Your task to perform on an android device: Open calendar and show me the fourth week of next month Image 0: 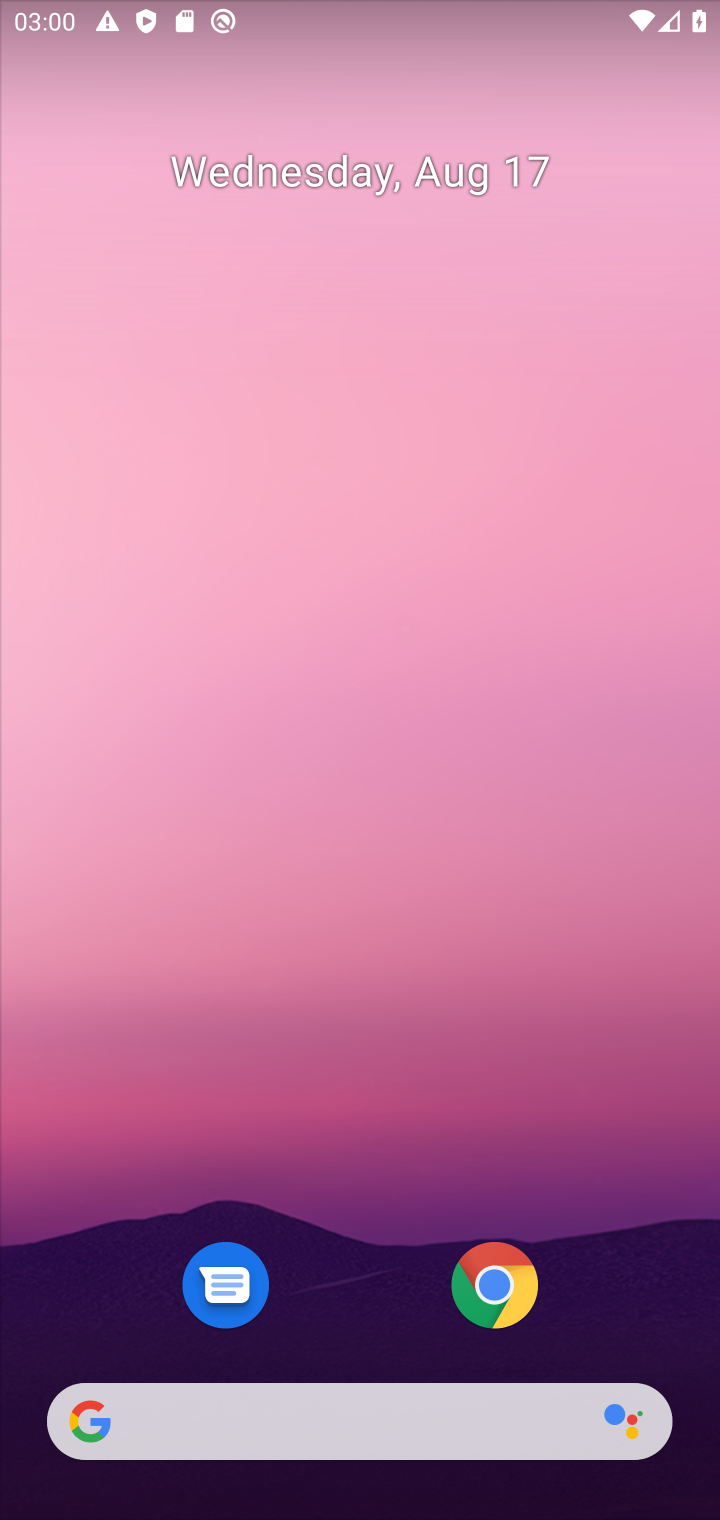
Step 0: drag from (367, 1032) to (420, 83)
Your task to perform on an android device: Open calendar and show me the fourth week of next month Image 1: 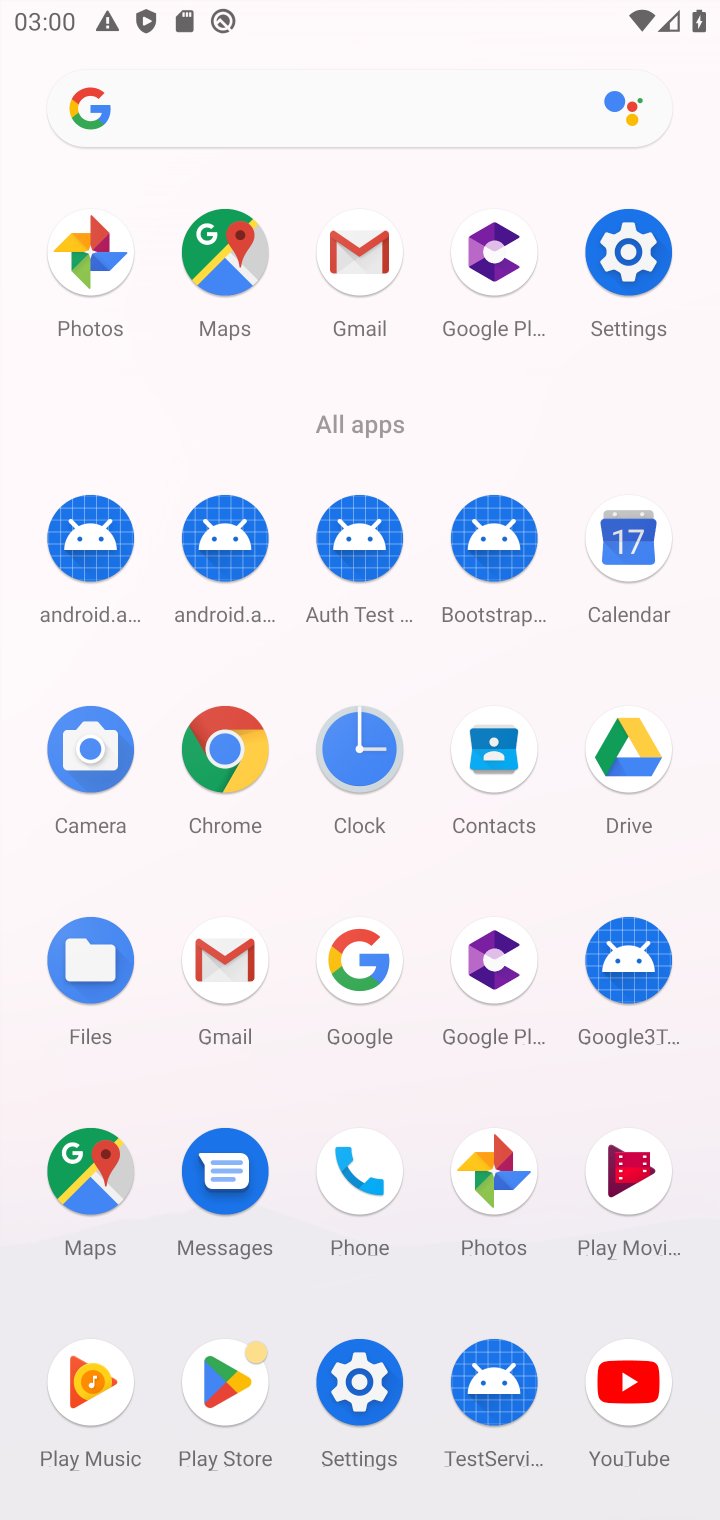
Step 1: click (614, 560)
Your task to perform on an android device: Open calendar and show me the fourth week of next month Image 2: 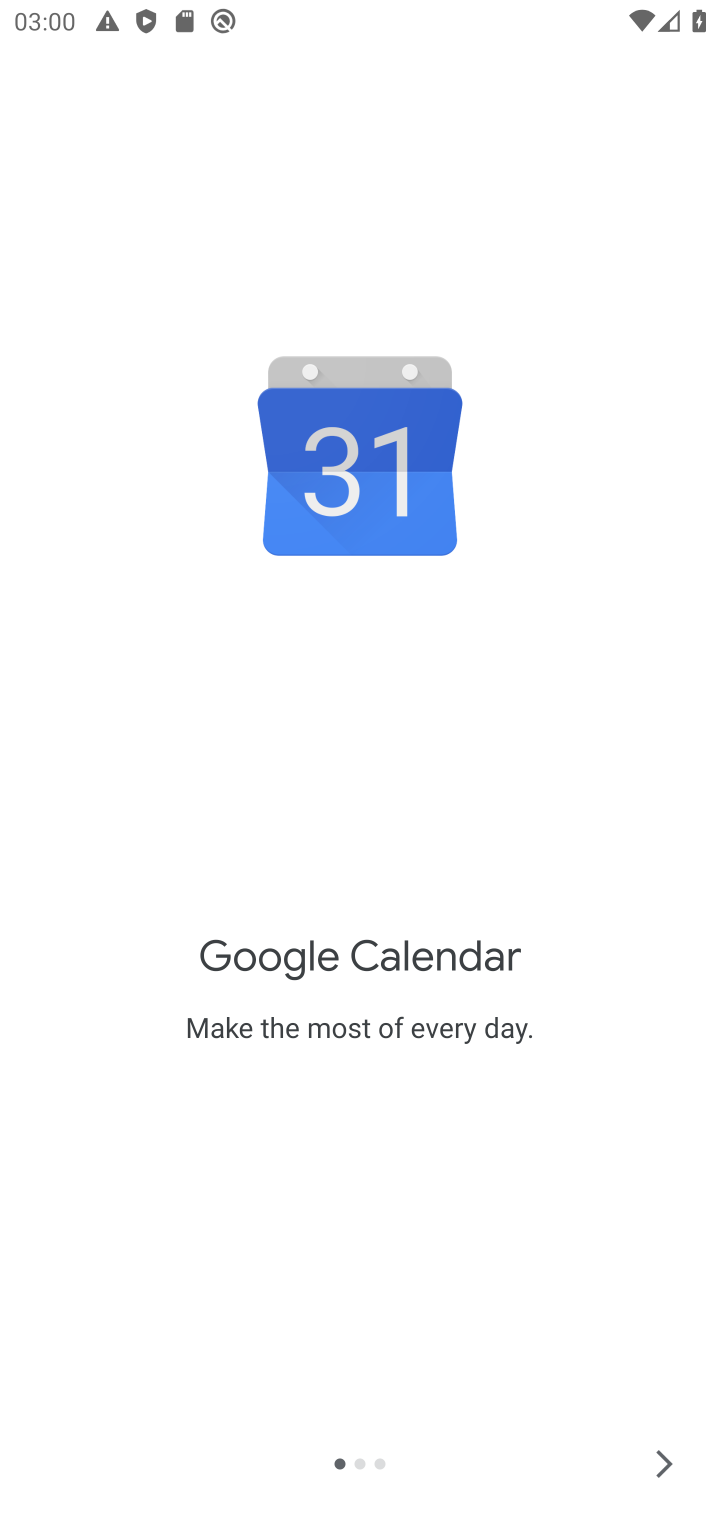
Step 2: click (642, 1454)
Your task to perform on an android device: Open calendar and show me the fourth week of next month Image 3: 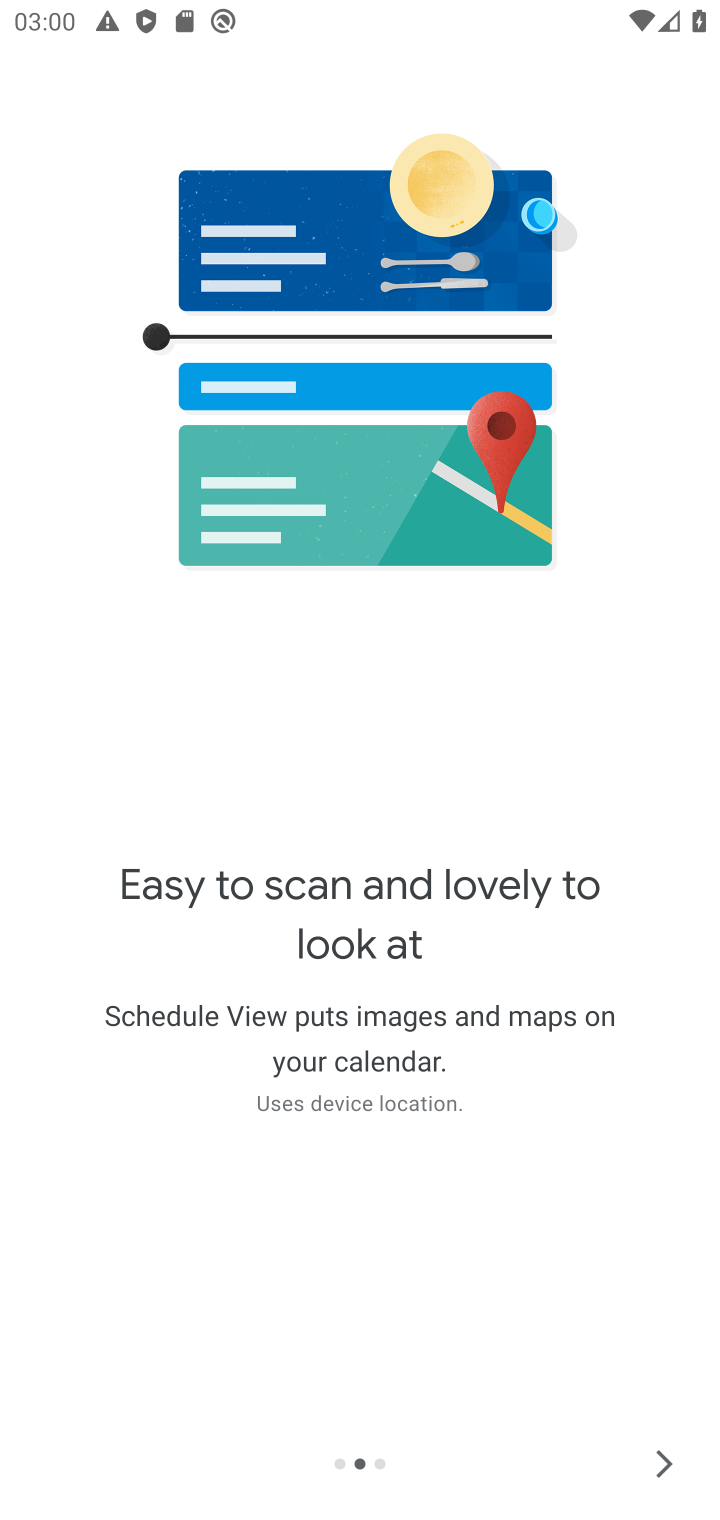
Step 3: click (658, 1446)
Your task to perform on an android device: Open calendar and show me the fourth week of next month Image 4: 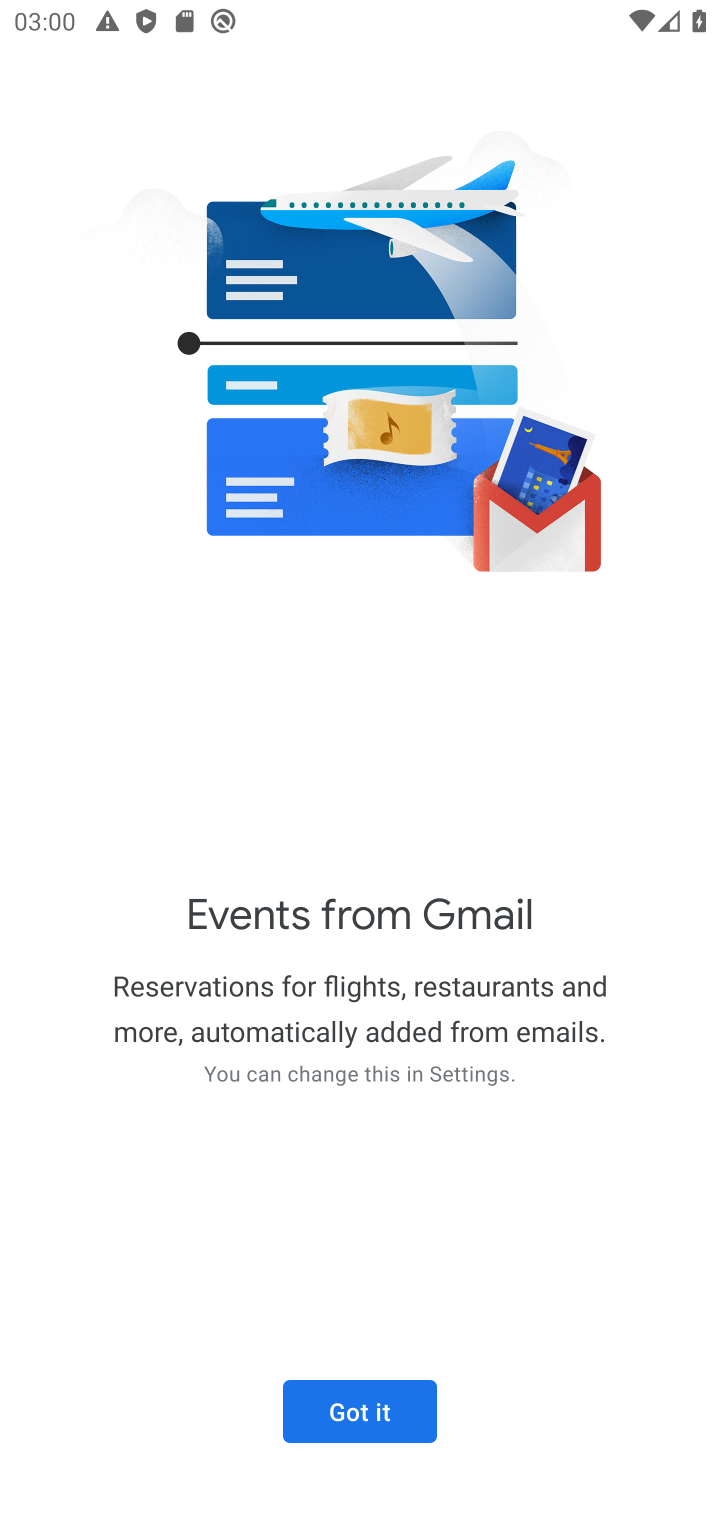
Step 4: click (402, 1409)
Your task to perform on an android device: Open calendar and show me the fourth week of next month Image 5: 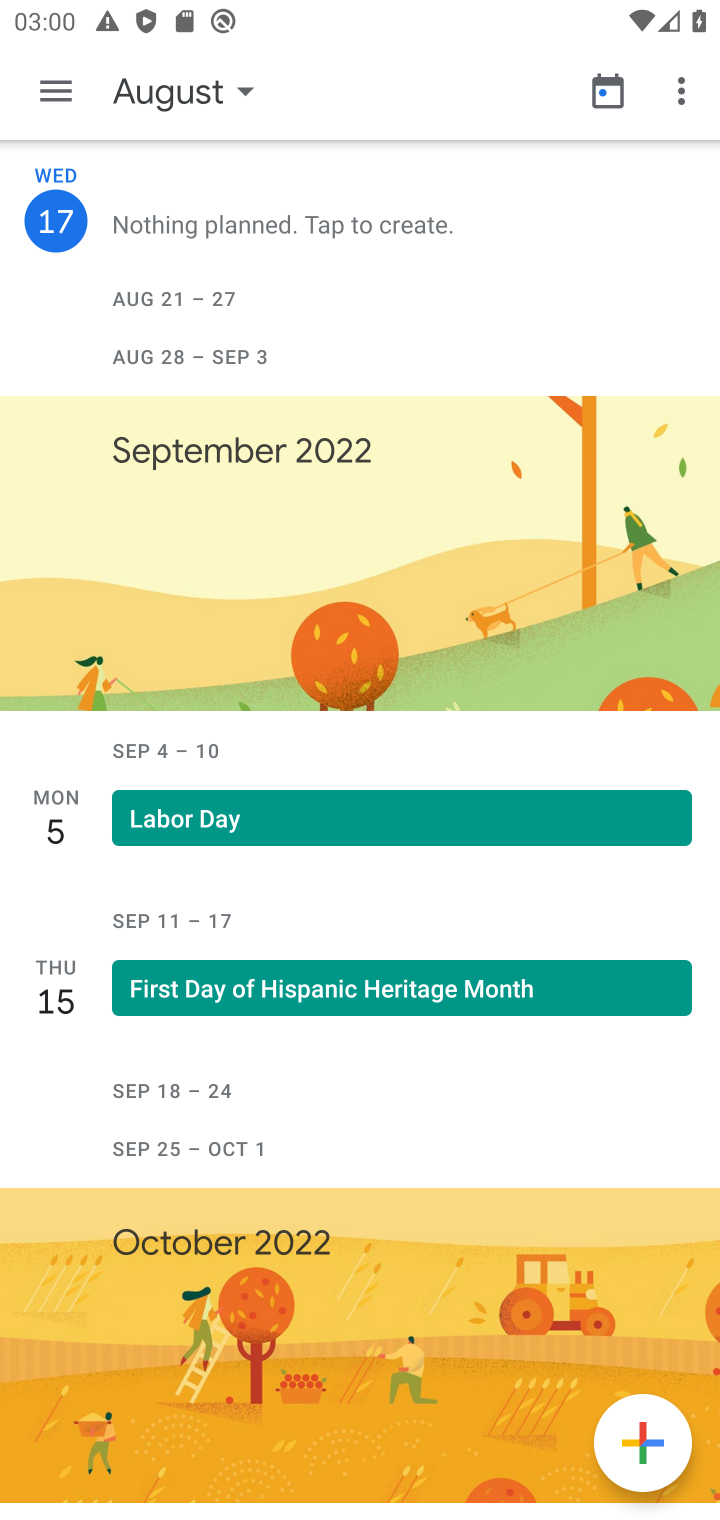
Step 5: click (44, 64)
Your task to perform on an android device: Open calendar and show me the fourth week of next month Image 6: 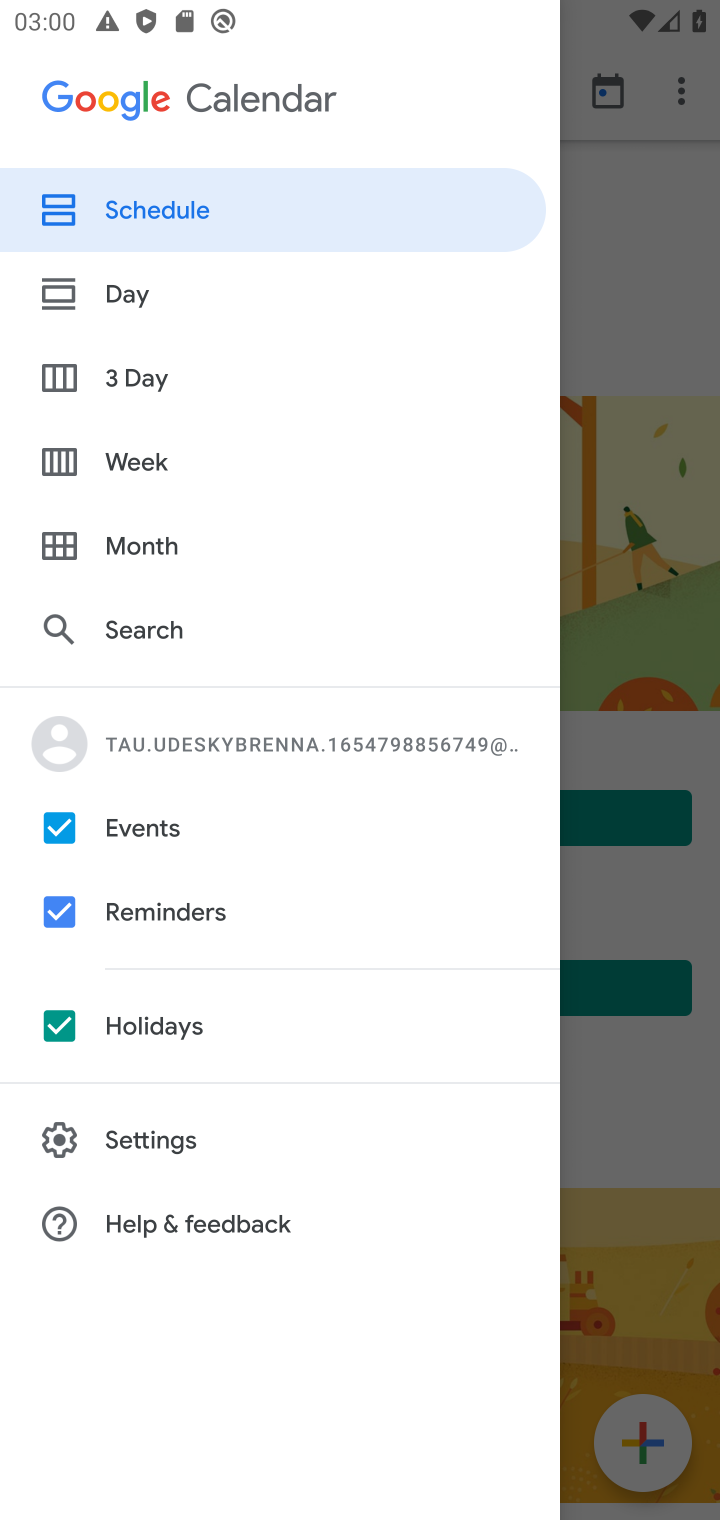
Step 6: click (142, 462)
Your task to perform on an android device: Open calendar and show me the fourth week of next month Image 7: 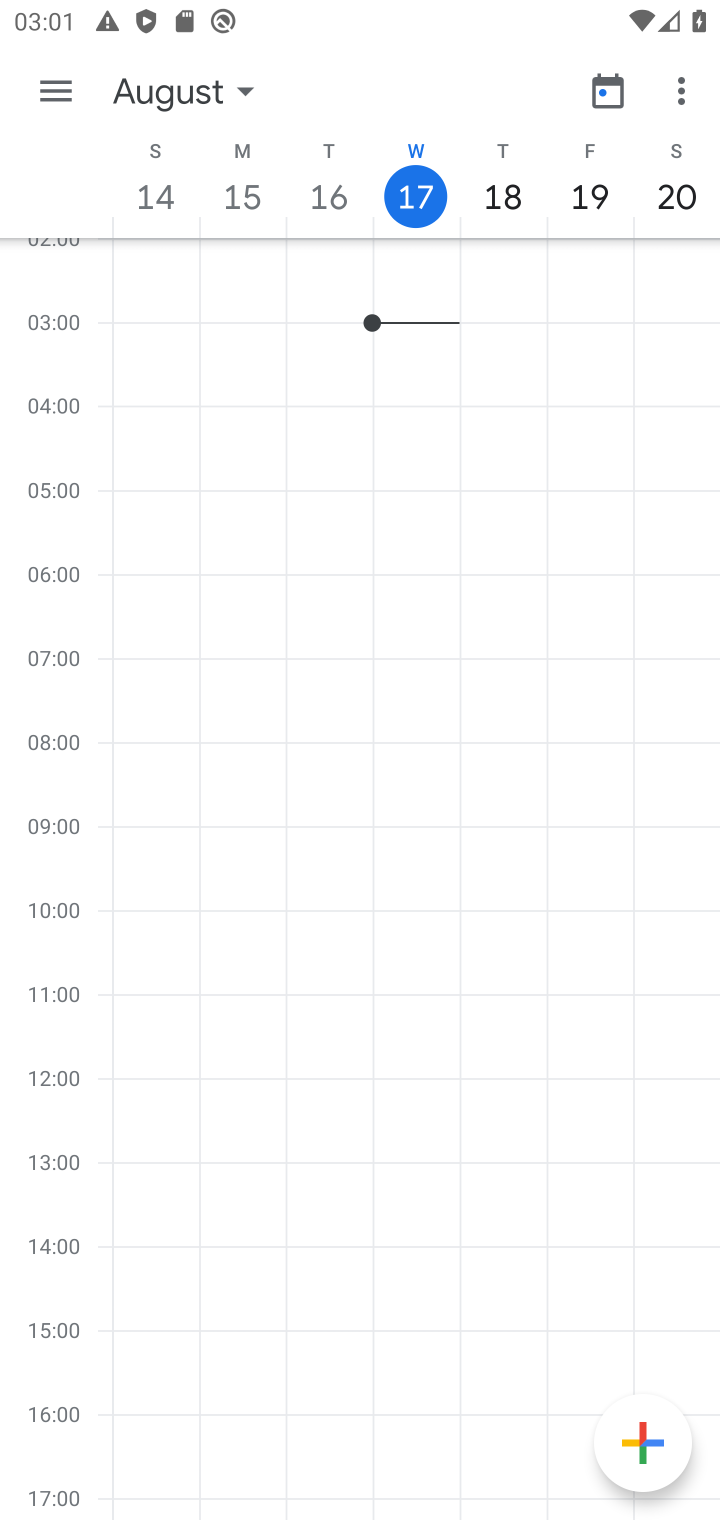
Step 7: task complete